Your task to perform on an android device: turn vacation reply on in the gmail app Image 0: 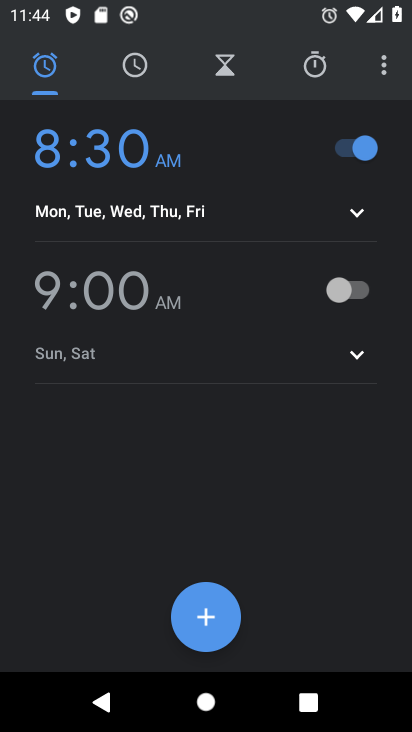
Step 0: press home button
Your task to perform on an android device: turn vacation reply on in the gmail app Image 1: 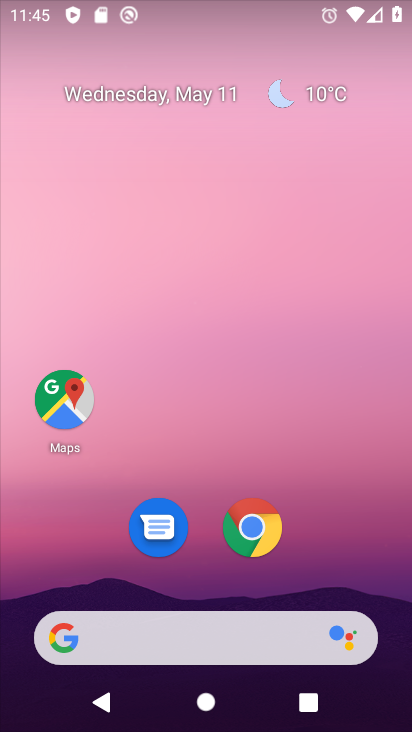
Step 1: drag from (194, 581) to (169, 26)
Your task to perform on an android device: turn vacation reply on in the gmail app Image 2: 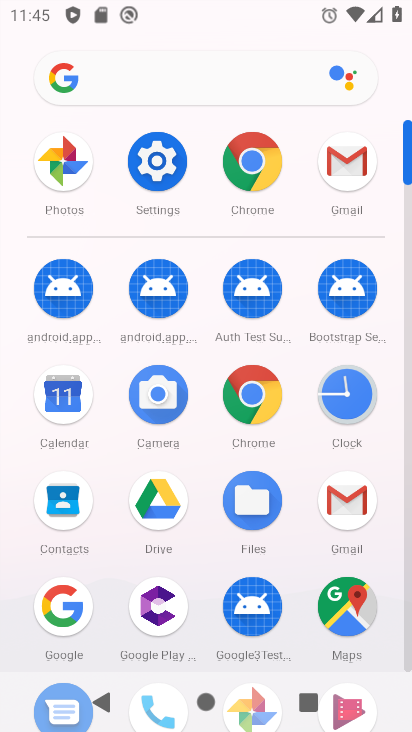
Step 2: click (341, 506)
Your task to perform on an android device: turn vacation reply on in the gmail app Image 3: 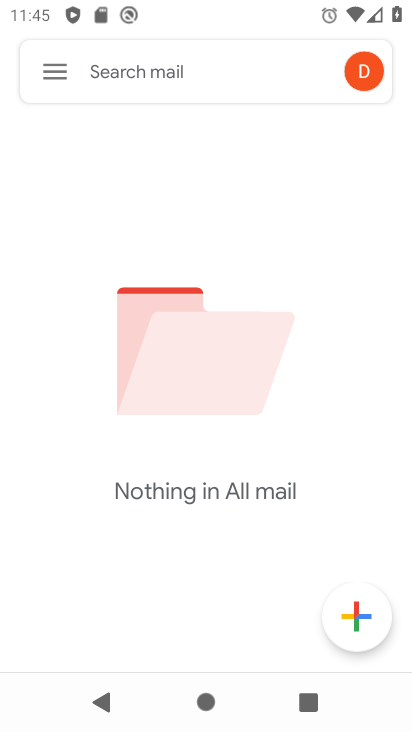
Step 3: click (69, 69)
Your task to perform on an android device: turn vacation reply on in the gmail app Image 4: 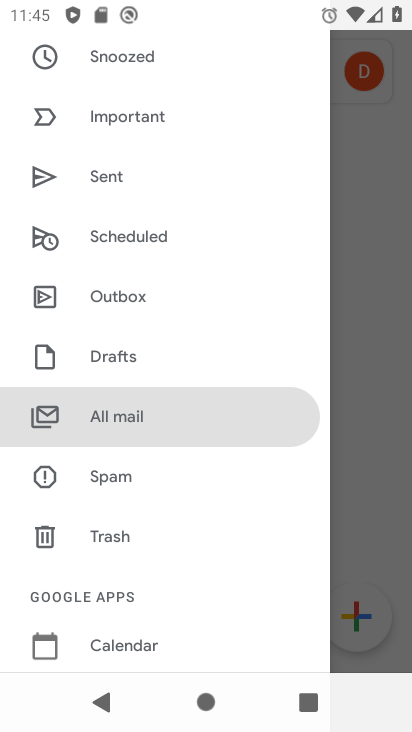
Step 4: drag from (146, 561) to (161, 316)
Your task to perform on an android device: turn vacation reply on in the gmail app Image 5: 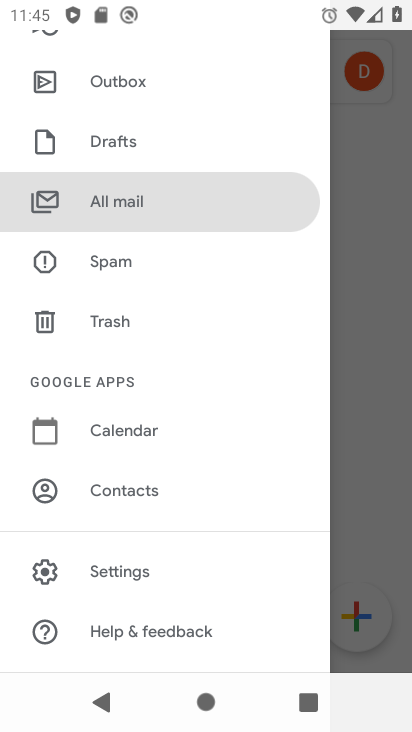
Step 5: click (133, 565)
Your task to perform on an android device: turn vacation reply on in the gmail app Image 6: 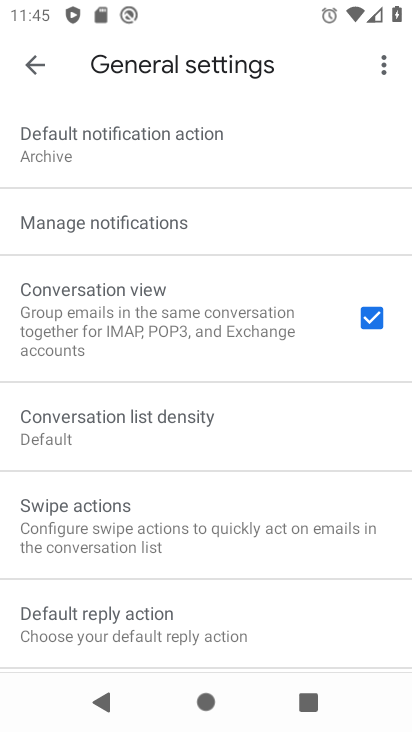
Step 6: drag from (141, 533) to (196, 95)
Your task to perform on an android device: turn vacation reply on in the gmail app Image 7: 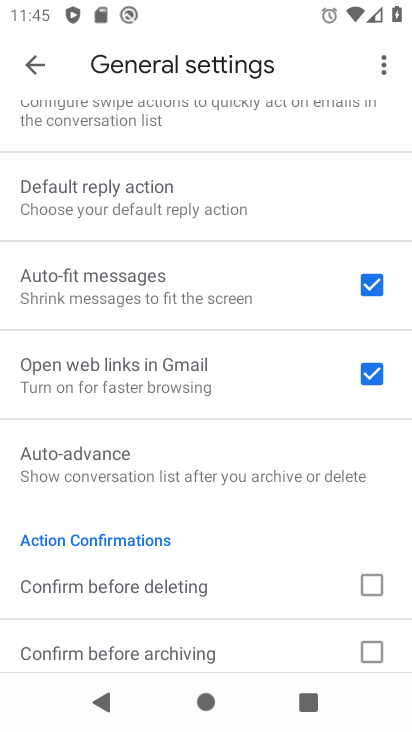
Step 7: click (42, 55)
Your task to perform on an android device: turn vacation reply on in the gmail app Image 8: 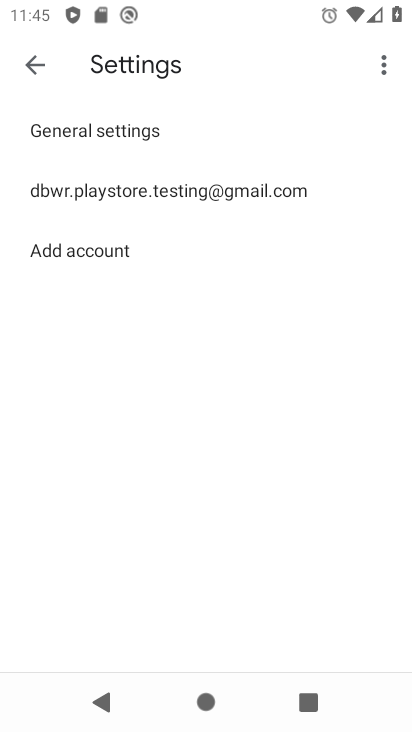
Step 8: click (150, 202)
Your task to perform on an android device: turn vacation reply on in the gmail app Image 9: 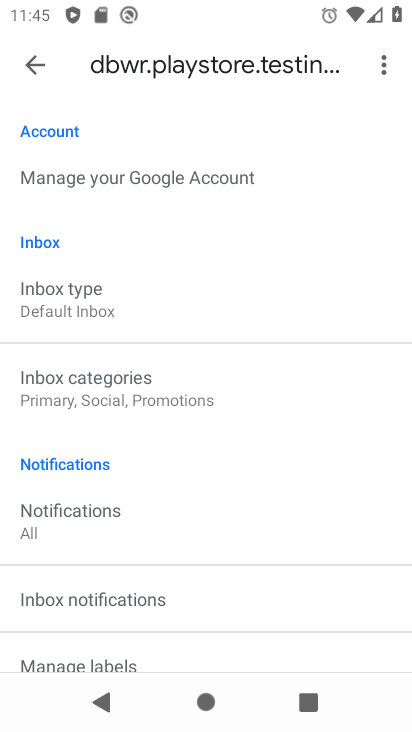
Step 9: drag from (141, 440) to (197, 182)
Your task to perform on an android device: turn vacation reply on in the gmail app Image 10: 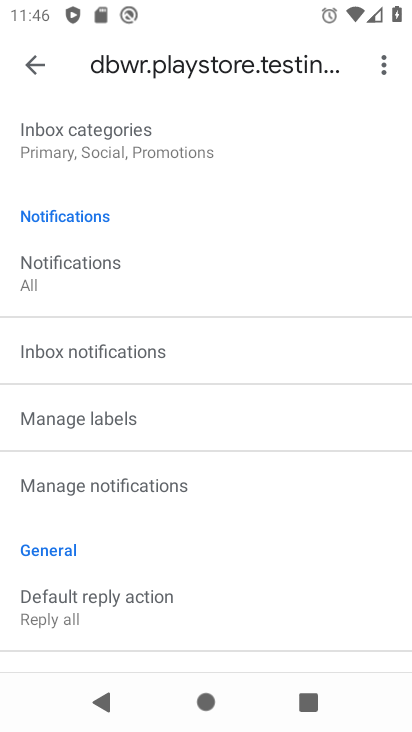
Step 10: drag from (154, 514) to (209, 193)
Your task to perform on an android device: turn vacation reply on in the gmail app Image 11: 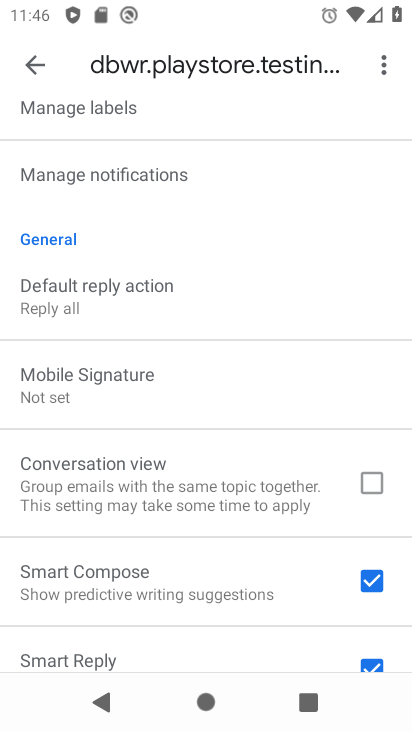
Step 11: drag from (150, 535) to (223, 215)
Your task to perform on an android device: turn vacation reply on in the gmail app Image 12: 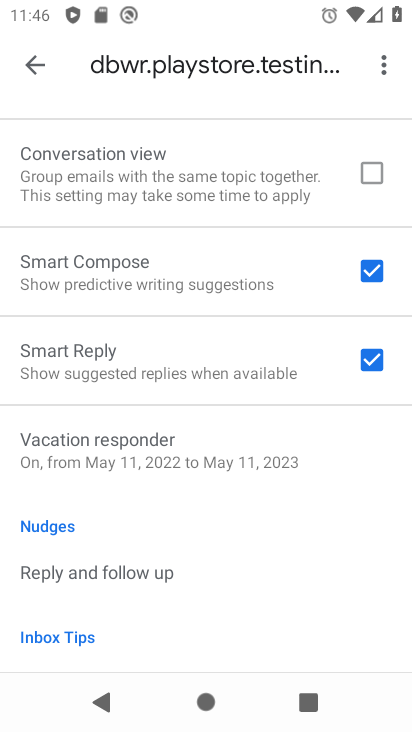
Step 12: click (192, 445)
Your task to perform on an android device: turn vacation reply on in the gmail app Image 13: 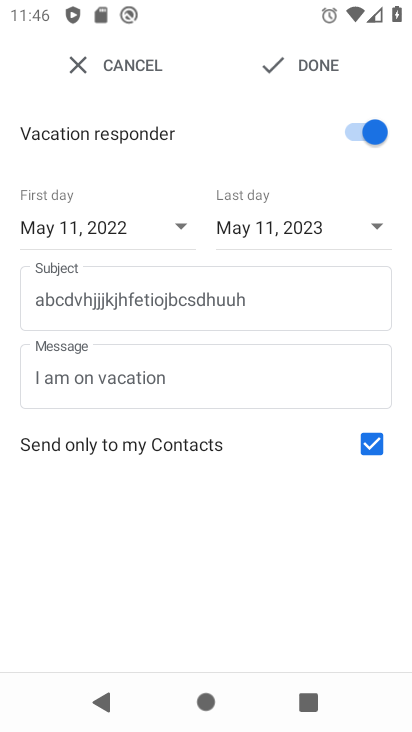
Step 13: task complete